Your task to perform on an android device: Open calendar and show me the fourth week of next month Image 0: 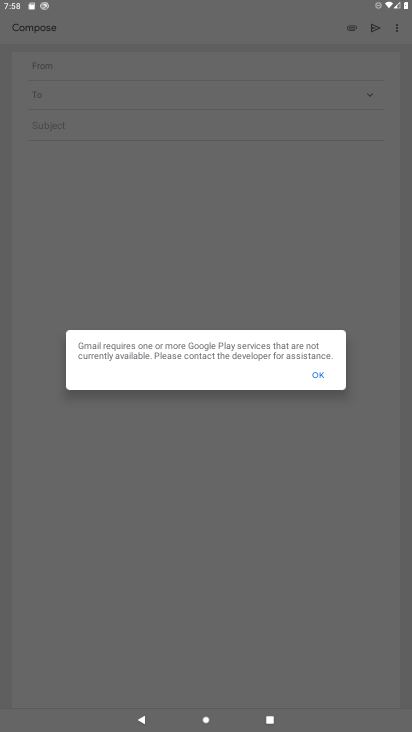
Step 0: press home button
Your task to perform on an android device: Open calendar and show me the fourth week of next month Image 1: 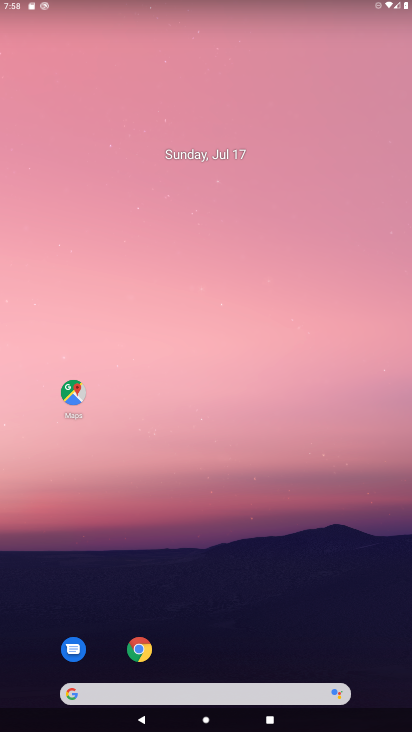
Step 1: drag from (180, 679) to (153, 57)
Your task to perform on an android device: Open calendar and show me the fourth week of next month Image 2: 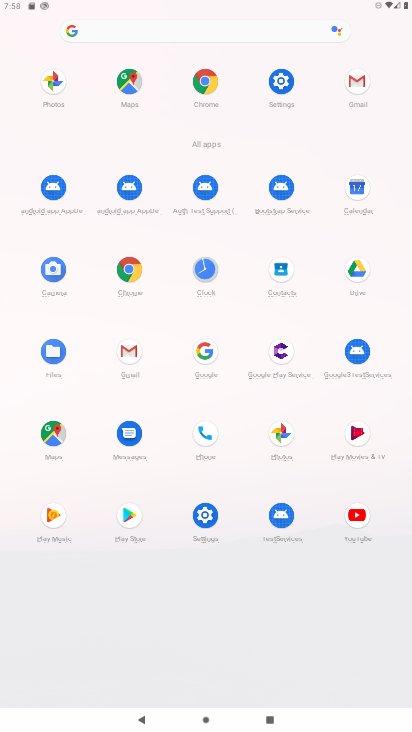
Step 2: click (355, 179)
Your task to perform on an android device: Open calendar and show me the fourth week of next month Image 3: 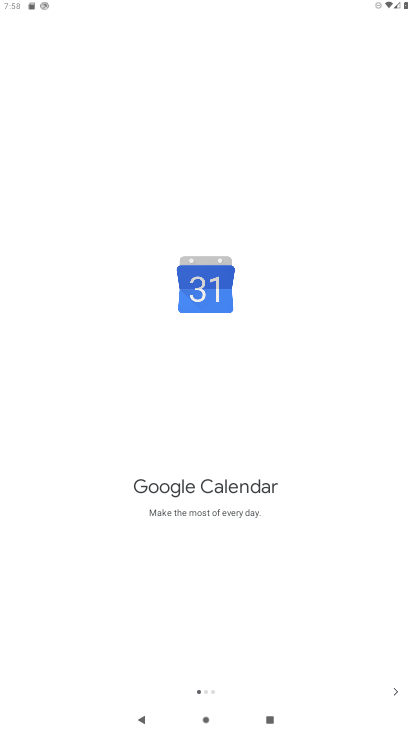
Step 3: click (394, 684)
Your task to perform on an android device: Open calendar and show me the fourth week of next month Image 4: 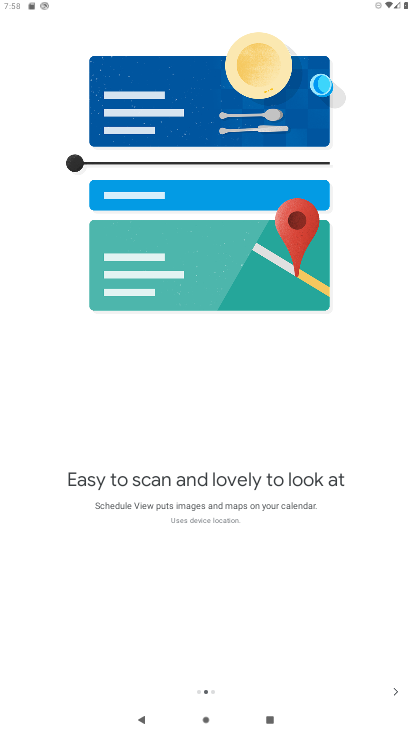
Step 4: click (381, 662)
Your task to perform on an android device: Open calendar and show me the fourth week of next month Image 5: 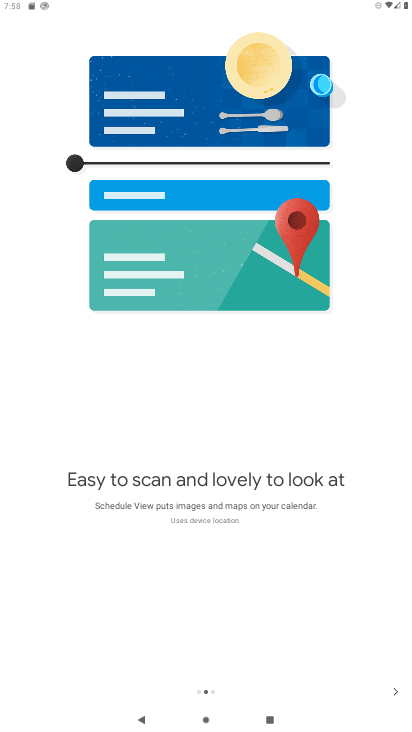
Step 5: click (402, 685)
Your task to perform on an android device: Open calendar and show me the fourth week of next month Image 6: 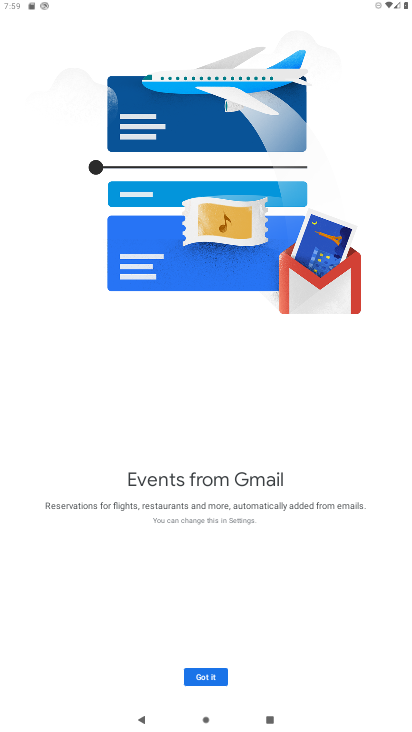
Step 6: click (219, 663)
Your task to perform on an android device: Open calendar and show me the fourth week of next month Image 7: 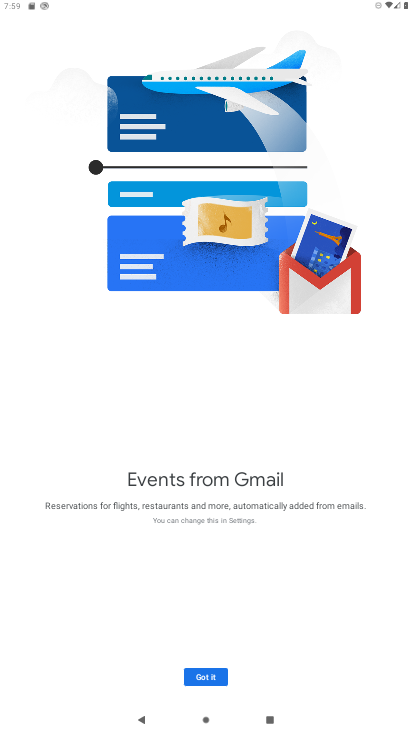
Step 7: click (199, 684)
Your task to perform on an android device: Open calendar and show me the fourth week of next month Image 8: 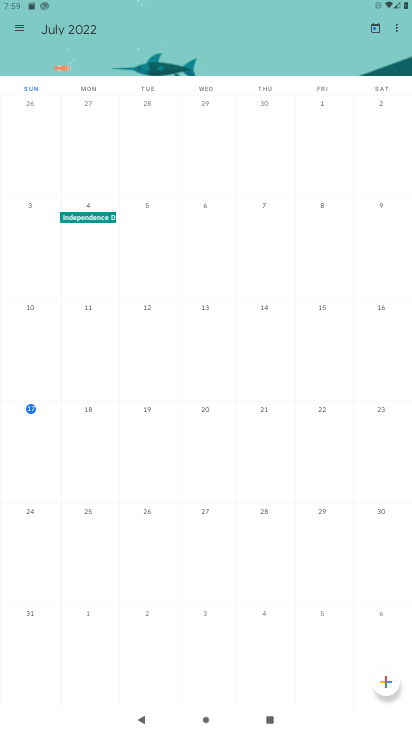
Step 8: click (8, 27)
Your task to perform on an android device: Open calendar and show me the fourth week of next month Image 9: 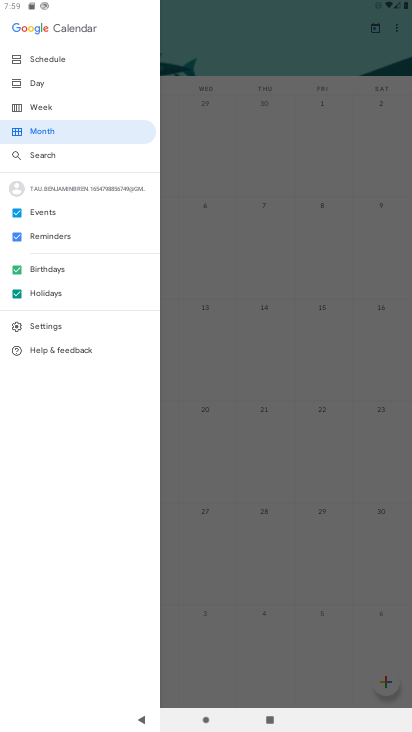
Step 9: click (35, 103)
Your task to perform on an android device: Open calendar and show me the fourth week of next month Image 10: 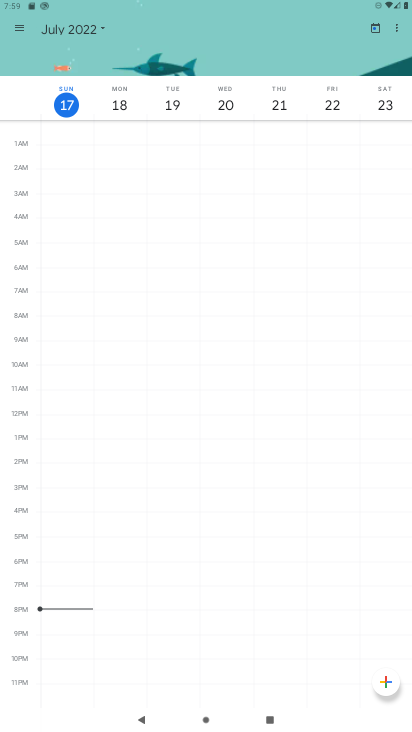
Step 10: task complete